Your task to perform on an android device: Go to sound settings Image 0: 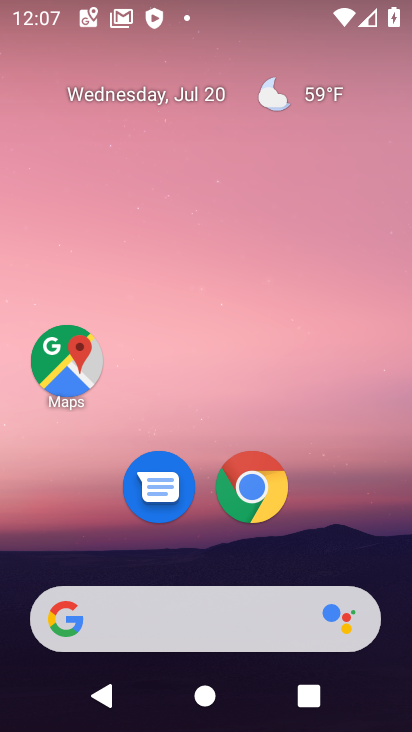
Step 0: drag from (86, 557) to (260, 0)
Your task to perform on an android device: Go to sound settings Image 1: 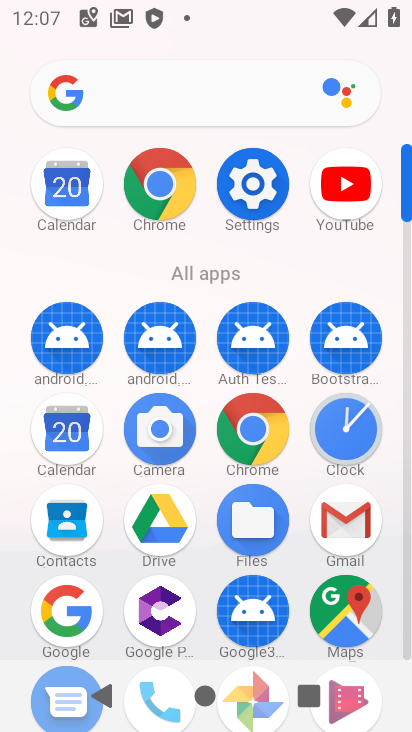
Step 1: click (245, 182)
Your task to perform on an android device: Go to sound settings Image 2: 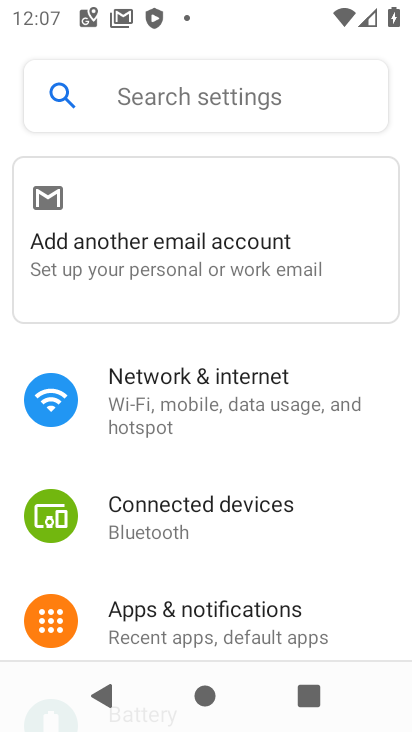
Step 2: drag from (155, 601) to (307, 145)
Your task to perform on an android device: Go to sound settings Image 3: 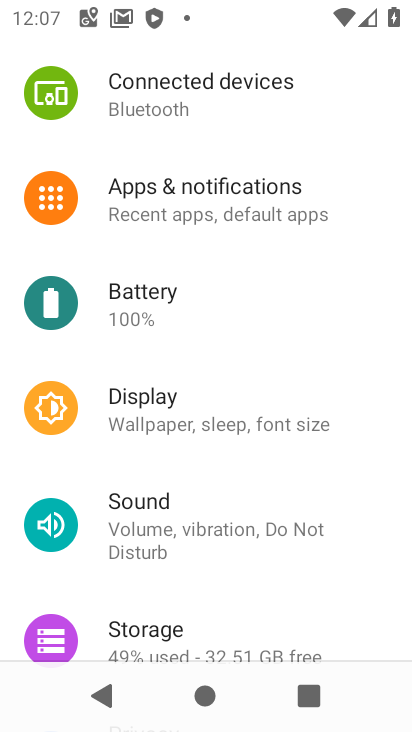
Step 3: click (164, 508)
Your task to perform on an android device: Go to sound settings Image 4: 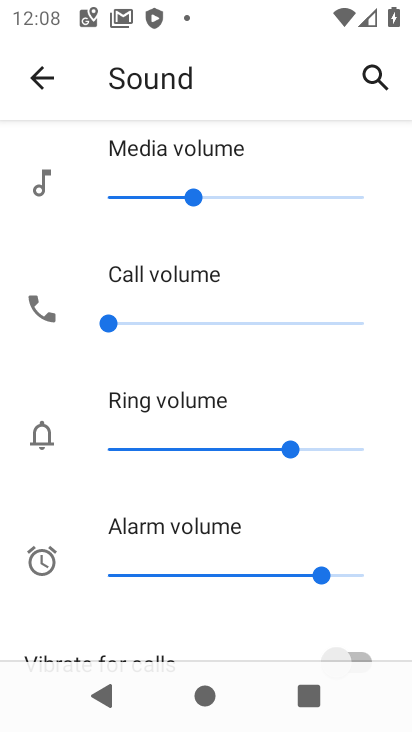
Step 4: task complete